Your task to perform on an android device: Search for pizza restaurants on Maps Image 0: 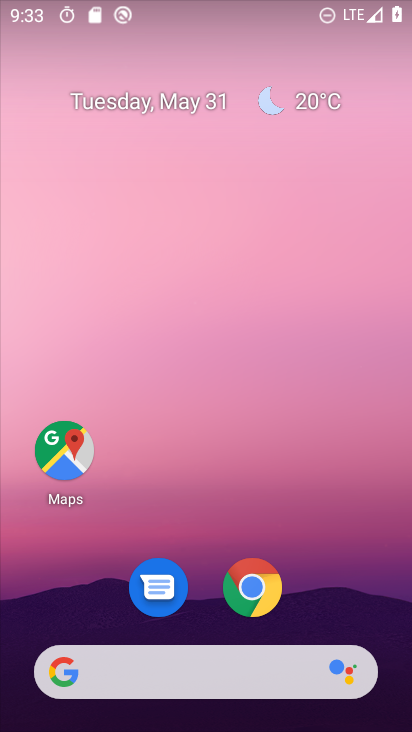
Step 0: click (61, 462)
Your task to perform on an android device: Search for pizza restaurants on Maps Image 1: 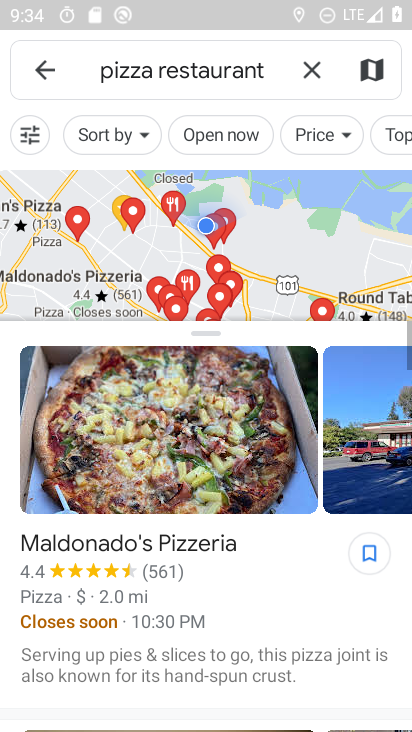
Step 1: task complete